Your task to perform on an android device: snooze an email in the gmail app Image 0: 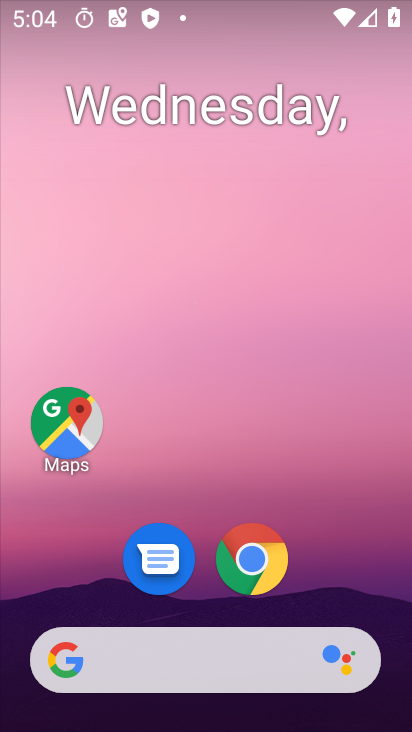
Step 0: drag from (327, 521) to (185, 40)
Your task to perform on an android device: snooze an email in the gmail app Image 1: 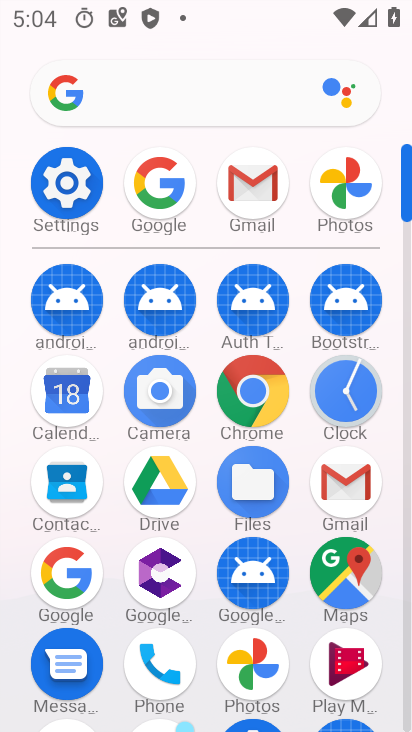
Step 1: click (359, 576)
Your task to perform on an android device: snooze an email in the gmail app Image 2: 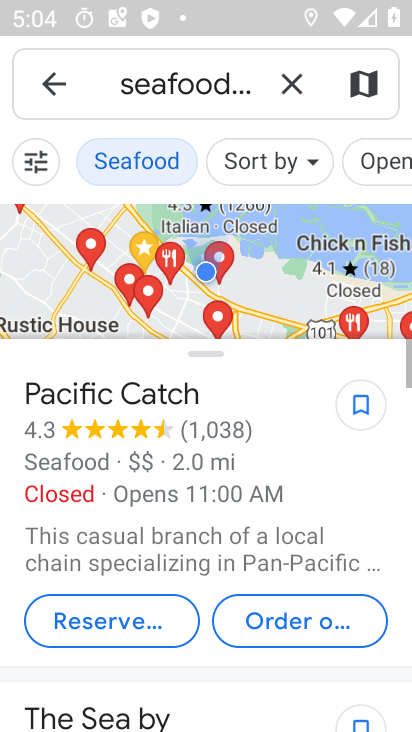
Step 2: press back button
Your task to perform on an android device: snooze an email in the gmail app Image 3: 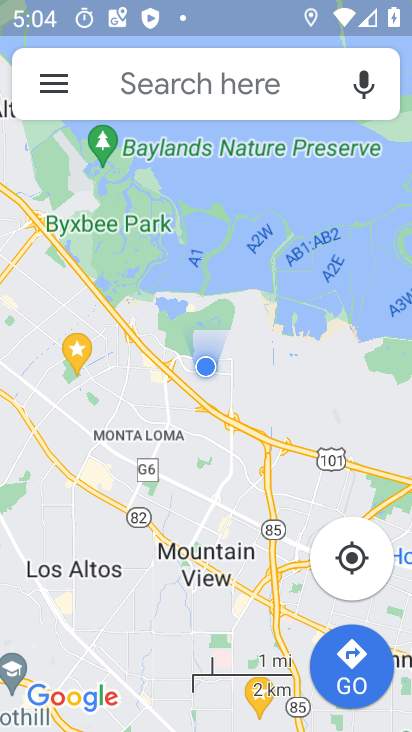
Step 3: press back button
Your task to perform on an android device: snooze an email in the gmail app Image 4: 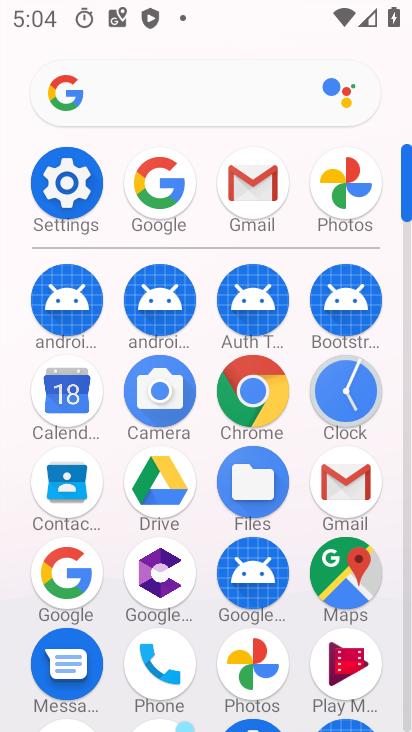
Step 4: click (349, 478)
Your task to perform on an android device: snooze an email in the gmail app Image 5: 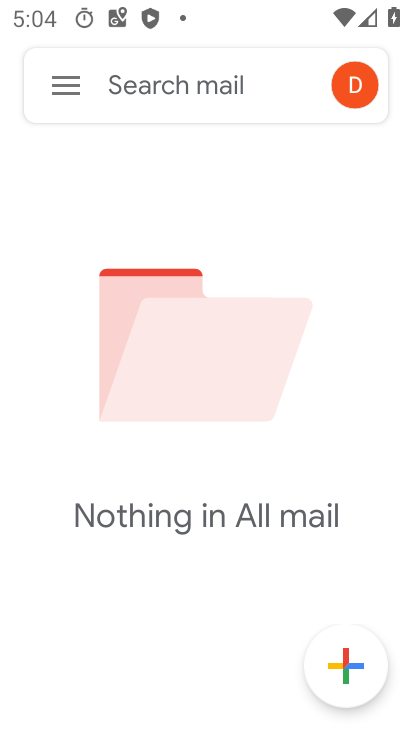
Step 5: click (68, 82)
Your task to perform on an android device: snooze an email in the gmail app Image 6: 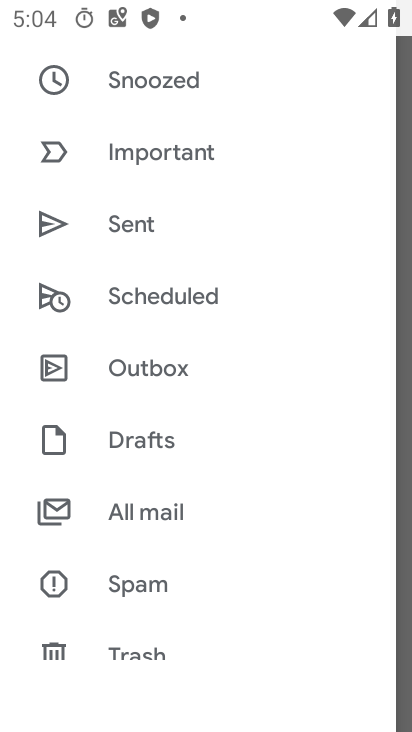
Step 6: click (186, 522)
Your task to perform on an android device: snooze an email in the gmail app Image 7: 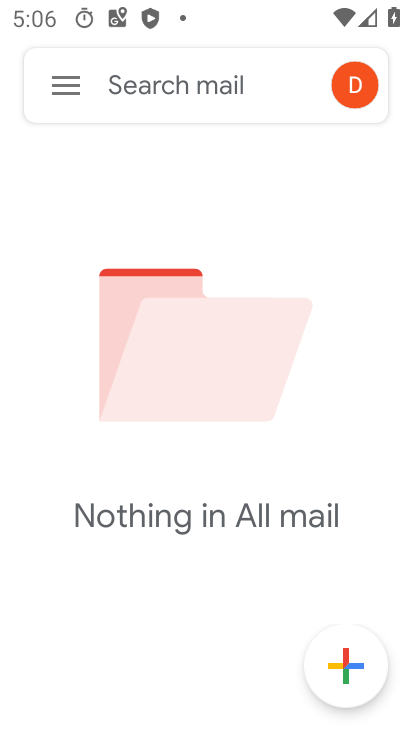
Step 7: task complete